Your task to perform on an android device: Open notification settings Image 0: 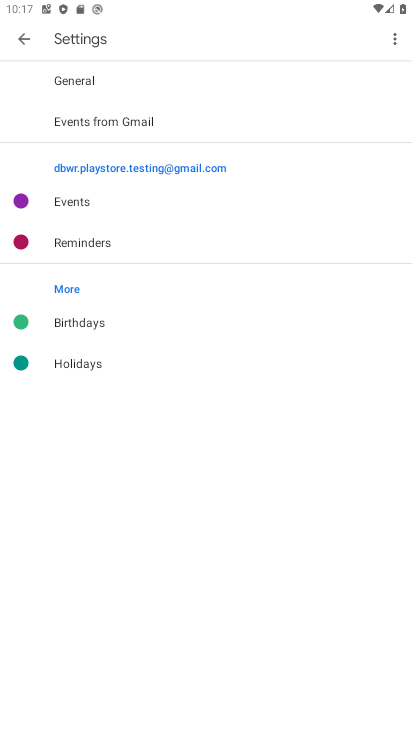
Step 0: press home button
Your task to perform on an android device: Open notification settings Image 1: 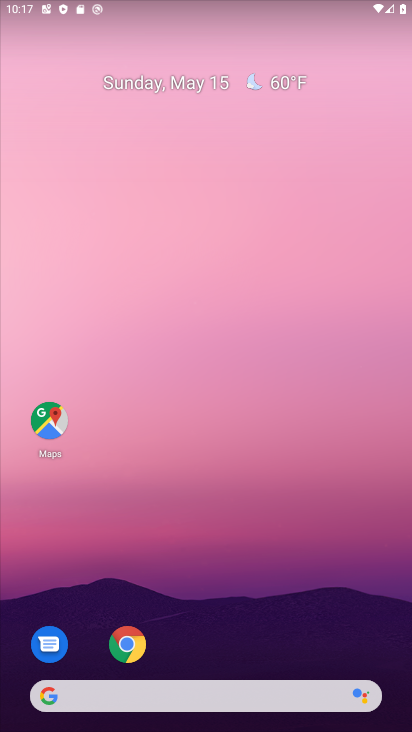
Step 1: drag from (167, 673) to (167, 309)
Your task to perform on an android device: Open notification settings Image 2: 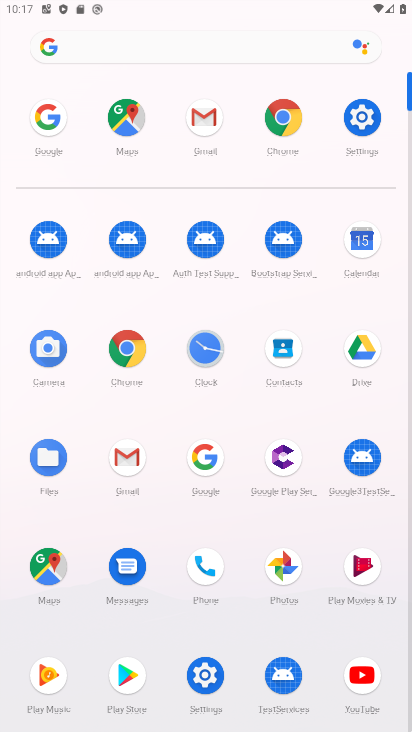
Step 2: click (370, 109)
Your task to perform on an android device: Open notification settings Image 3: 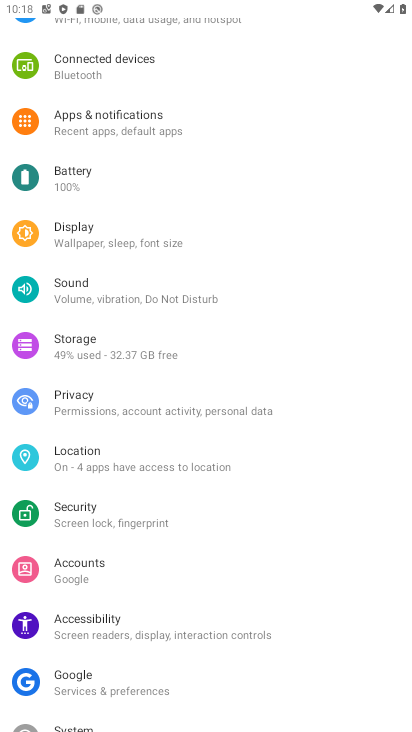
Step 3: click (150, 117)
Your task to perform on an android device: Open notification settings Image 4: 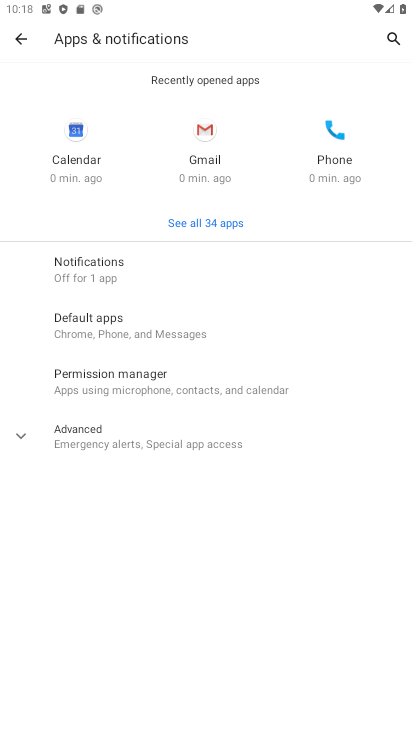
Step 4: click (84, 443)
Your task to perform on an android device: Open notification settings Image 5: 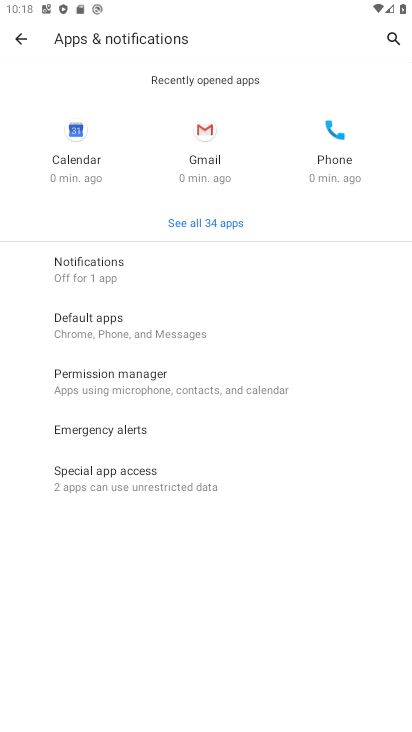
Step 5: task complete